Your task to perform on an android device: Clear the cart on walmart.com. Add razer blade to the cart on walmart.com, then select checkout. Image 0: 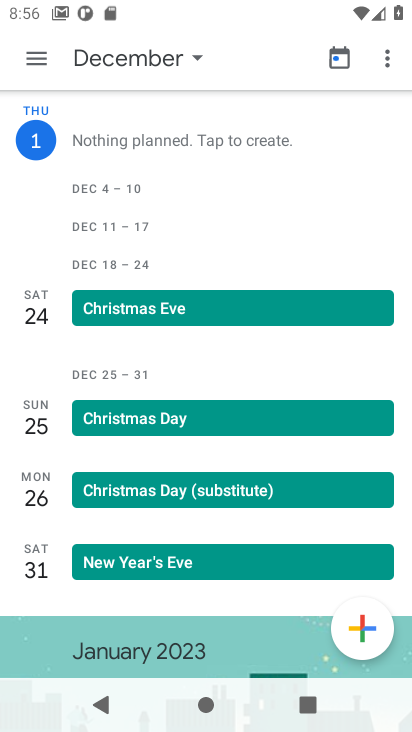
Step 0: press home button
Your task to perform on an android device: Clear the cart on walmart.com. Add razer blade to the cart on walmart.com, then select checkout. Image 1: 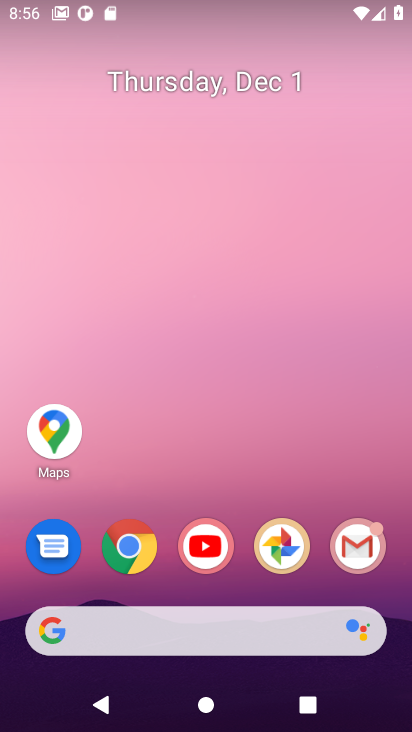
Step 1: click (138, 535)
Your task to perform on an android device: Clear the cart on walmart.com. Add razer blade to the cart on walmart.com, then select checkout. Image 2: 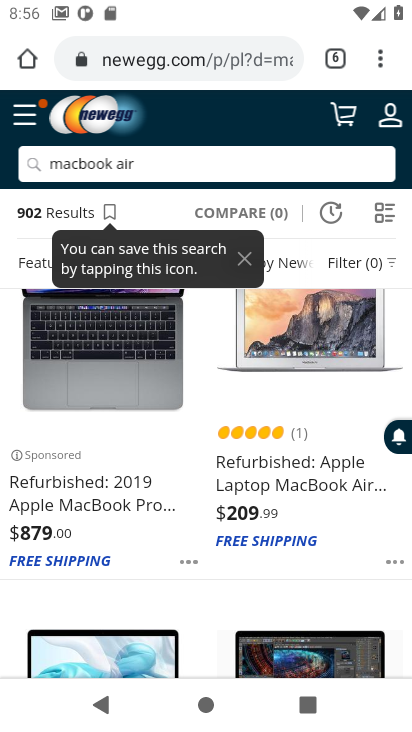
Step 2: click (184, 65)
Your task to perform on an android device: Clear the cart on walmart.com. Add razer blade to the cart on walmart.com, then select checkout. Image 3: 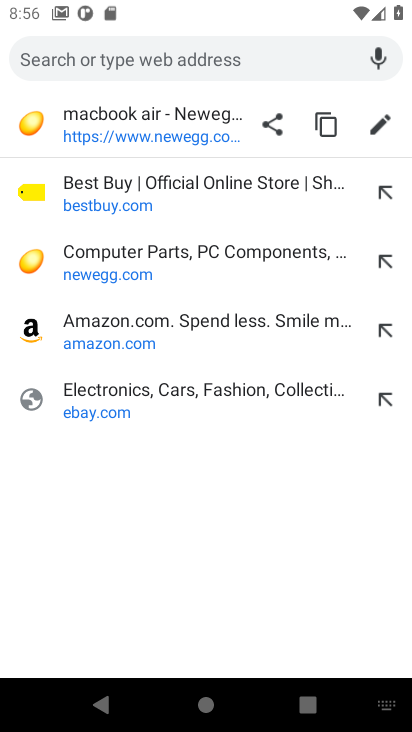
Step 3: type "walmart.com"
Your task to perform on an android device: Clear the cart on walmart.com. Add razer blade to the cart on walmart.com, then select checkout. Image 4: 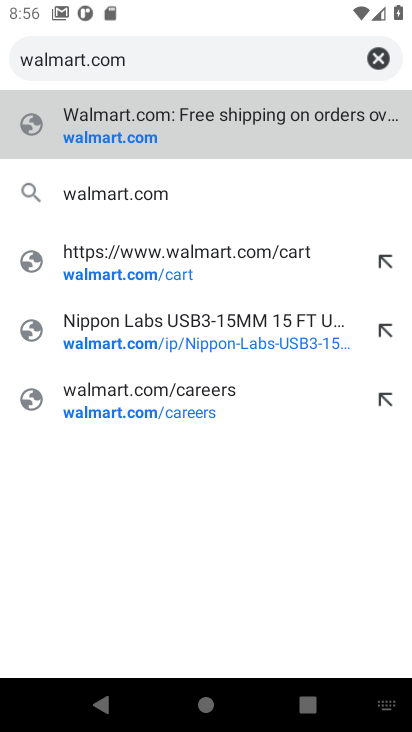
Step 4: click (74, 142)
Your task to perform on an android device: Clear the cart on walmart.com. Add razer blade to the cart on walmart.com, then select checkout. Image 5: 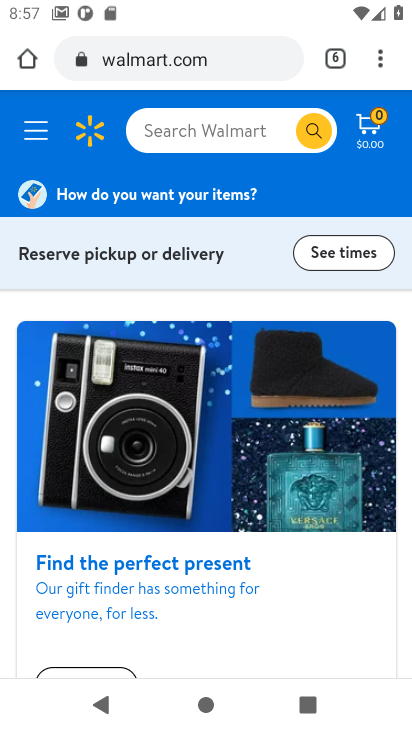
Step 5: click (365, 129)
Your task to perform on an android device: Clear the cart on walmart.com. Add razer blade to the cart on walmart.com, then select checkout. Image 6: 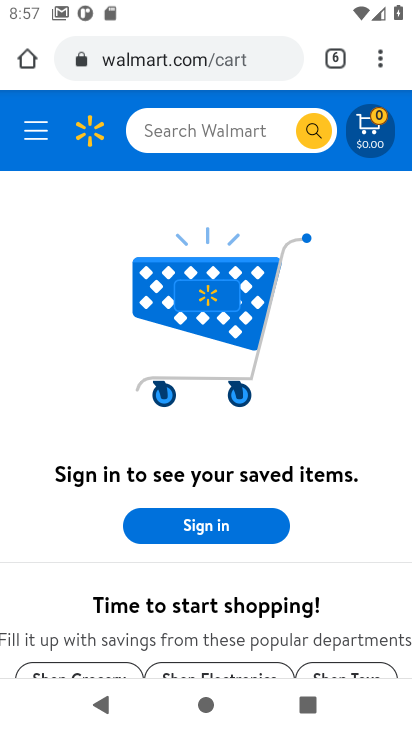
Step 6: click (196, 139)
Your task to perform on an android device: Clear the cart on walmart.com. Add razer blade to the cart on walmart.com, then select checkout. Image 7: 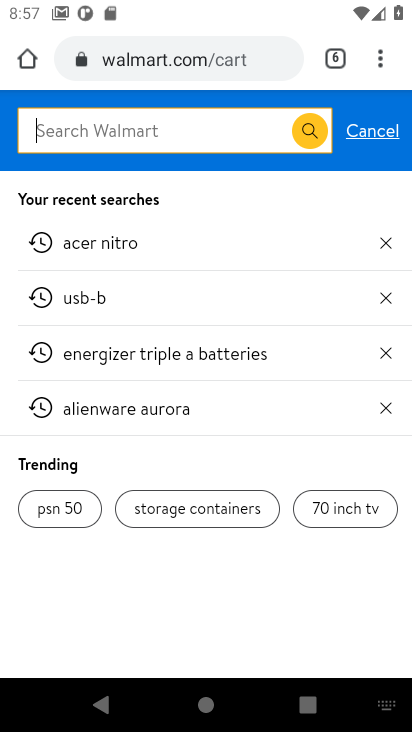
Step 7: type "razer blade"
Your task to perform on an android device: Clear the cart on walmart.com. Add razer blade to the cart on walmart.com, then select checkout. Image 8: 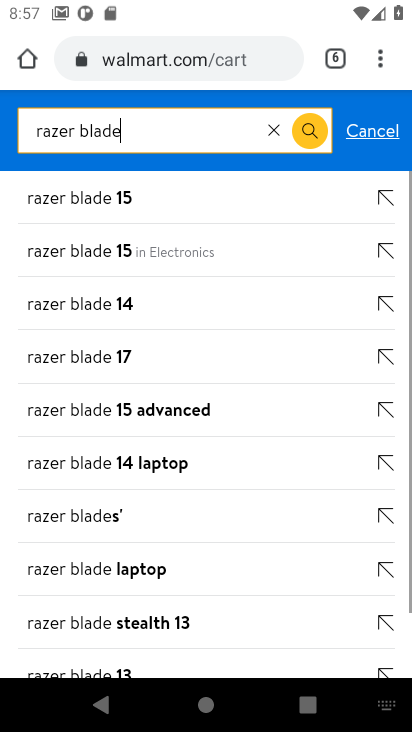
Step 8: click (75, 198)
Your task to perform on an android device: Clear the cart on walmart.com. Add razer blade to the cart on walmart.com, then select checkout. Image 9: 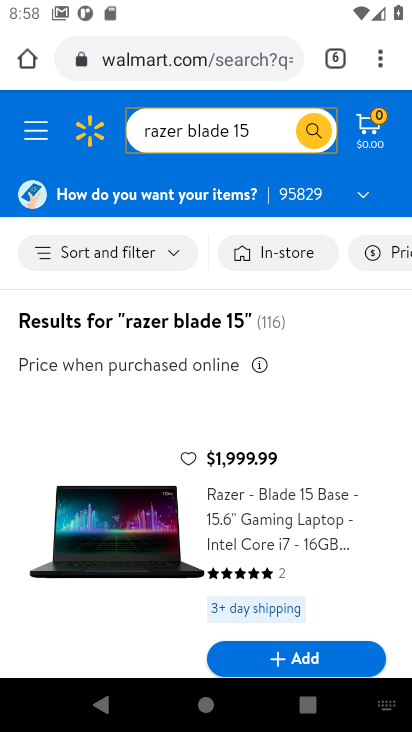
Step 9: drag from (111, 481) to (94, 331)
Your task to perform on an android device: Clear the cart on walmart.com. Add razer blade to the cart on walmart.com, then select checkout. Image 10: 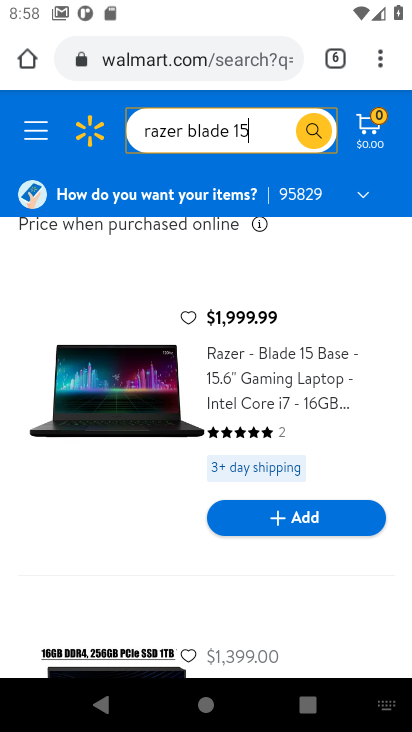
Step 10: click (280, 518)
Your task to perform on an android device: Clear the cart on walmart.com. Add razer blade to the cart on walmart.com, then select checkout. Image 11: 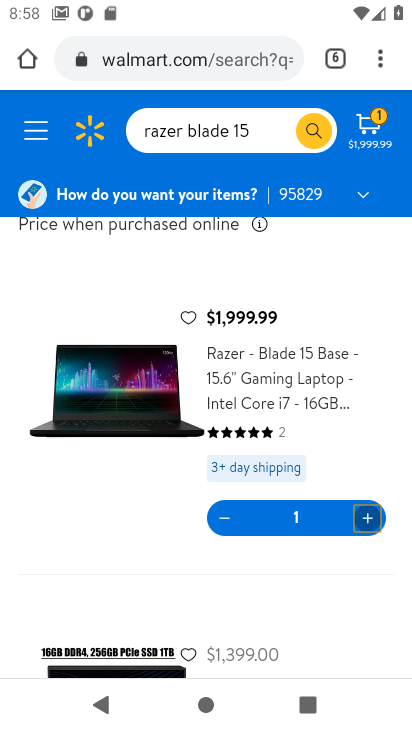
Step 11: click (367, 140)
Your task to perform on an android device: Clear the cart on walmart.com. Add razer blade to the cart on walmart.com, then select checkout. Image 12: 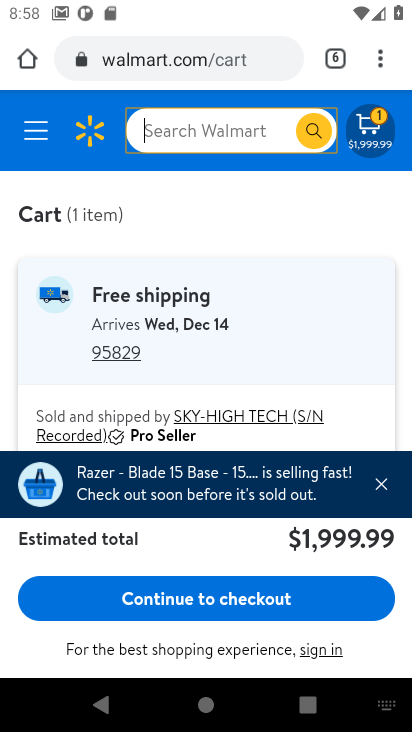
Step 12: click (234, 591)
Your task to perform on an android device: Clear the cart on walmart.com. Add razer blade to the cart on walmart.com, then select checkout. Image 13: 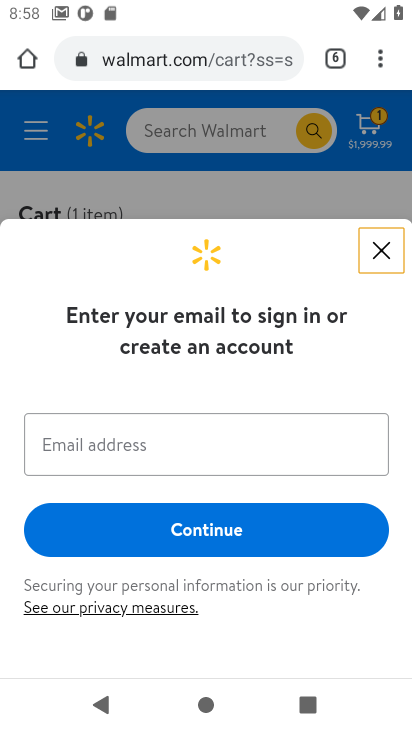
Step 13: task complete